Your task to perform on an android device: turn on data saver in the chrome app Image 0: 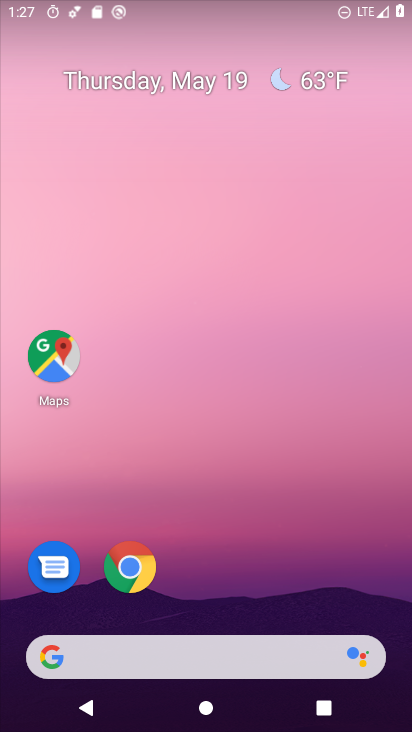
Step 0: drag from (134, 651) to (370, 98)
Your task to perform on an android device: turn on data saver in the chrome app Image 1: 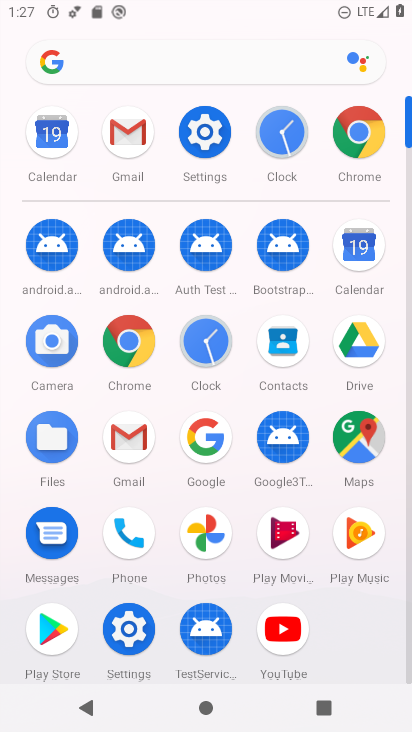
Step 1: click (364, 145)
Your task to perform on an android device: turn on data saver in the chrome app Image 2: 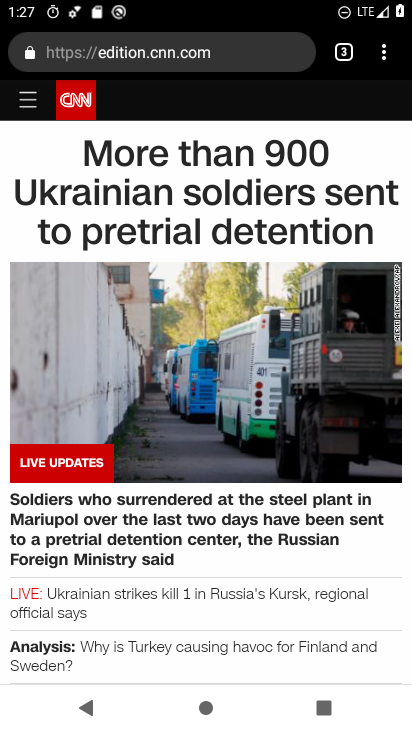
Step 2: drag from (385, 60) to (228, 583)
Your task to perform on an android device: turn on data saver in the chrome app Image 3: 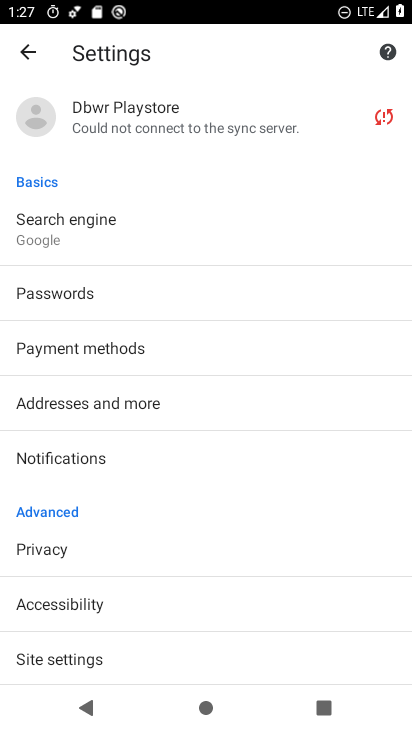
Step 3: drag from (127, 651) to (263, 383)
Your task to perform on an android device: turn on data saver in the chrome app Image 4: 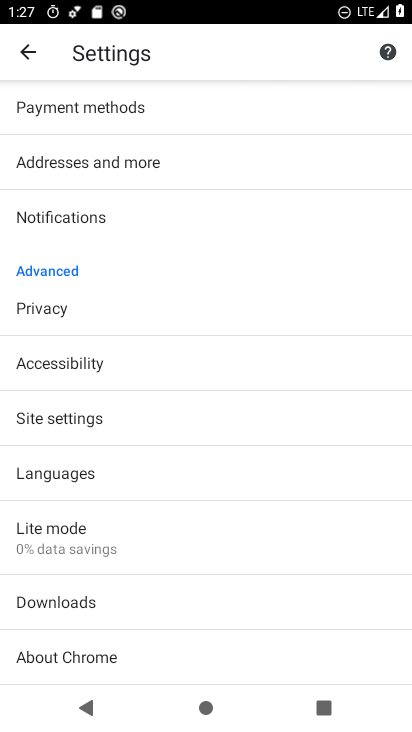
Step 4: click (100, 533)
Your task to perform on an android device: turn on data saver in the chrome app Image 5: 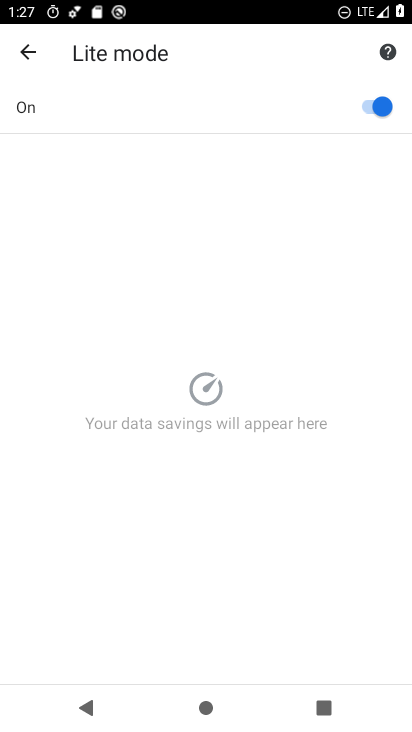
Step 5: task complete